Your task to perform on an android device: Go to accessibility settings Image 0: 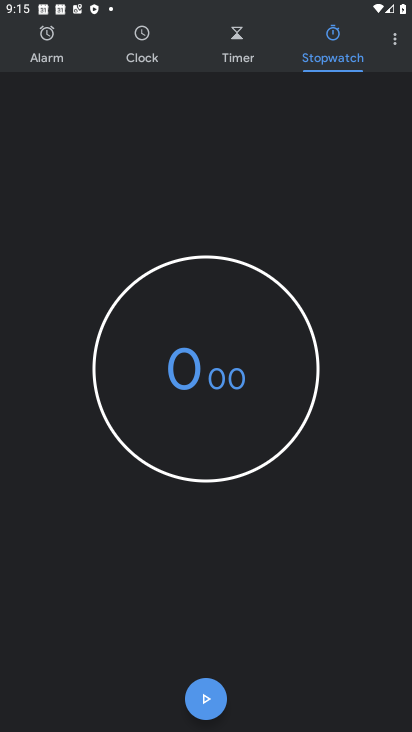
Step 0: press home button
Your task to perform on an android device: Go to accessibility settings Image 1: 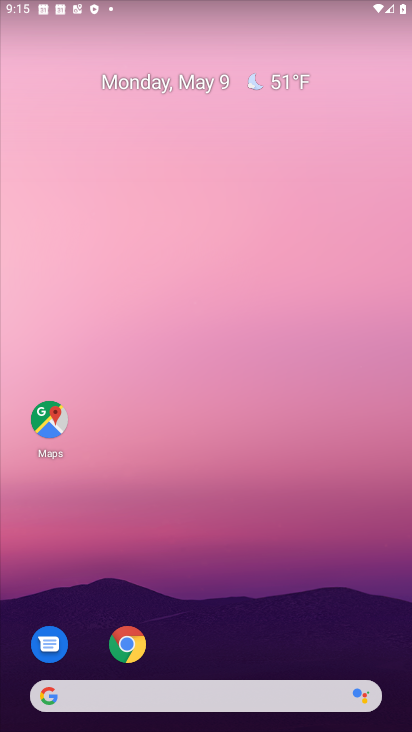
Step 1: drag from (216, 669) to (101, 21)
Your task to perform on an android device: Go to accessibility settings Image 2: 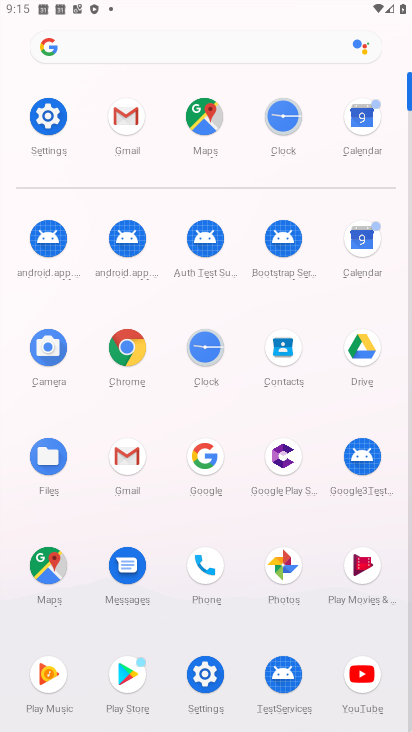
Step 2: click (45, 125)
Your task to perform on an android device: Go to accessibility settings Image 3: 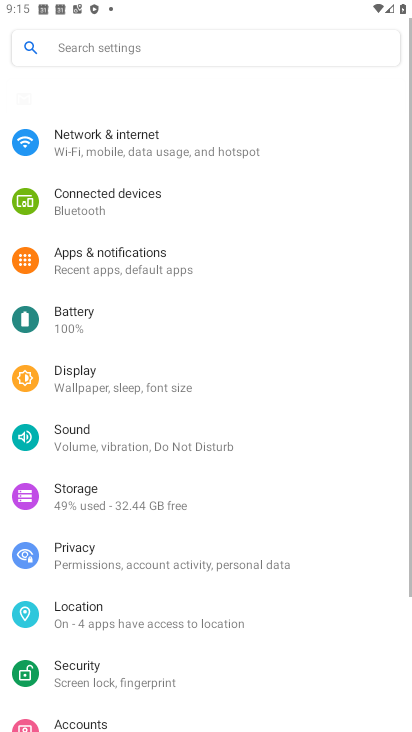
Step 3: drag from (193, 576) to (187, 14)
Your task to perform on an android device: Go to accessibility settings Image 4: 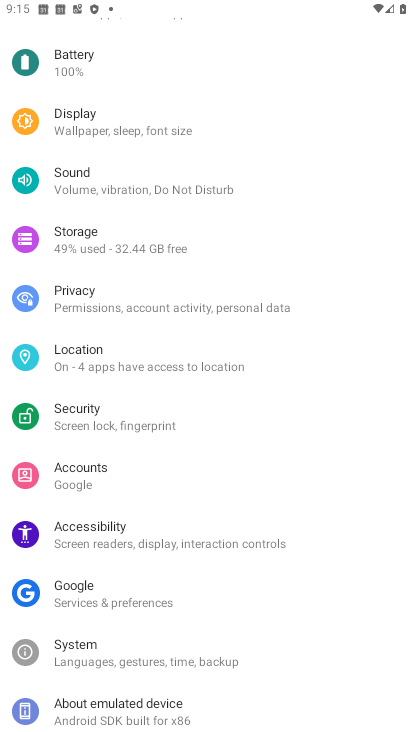
Step 4: click (109, 519)
Your task to perform on an android device: Go to accessibility settings Image 5: 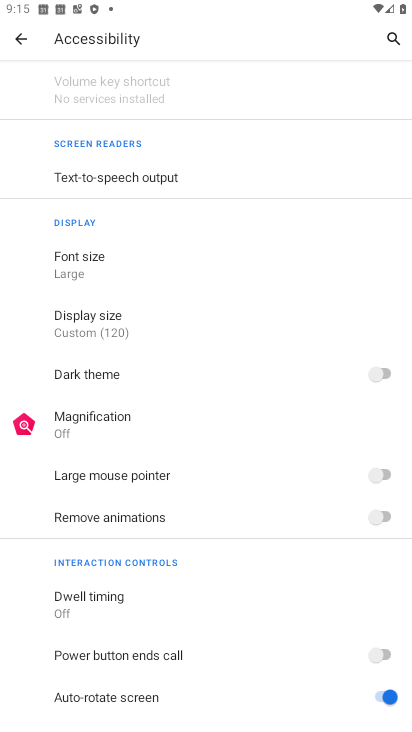
Step 5: task complete